Your task to perform on an android device: Show me recent news Image 0: 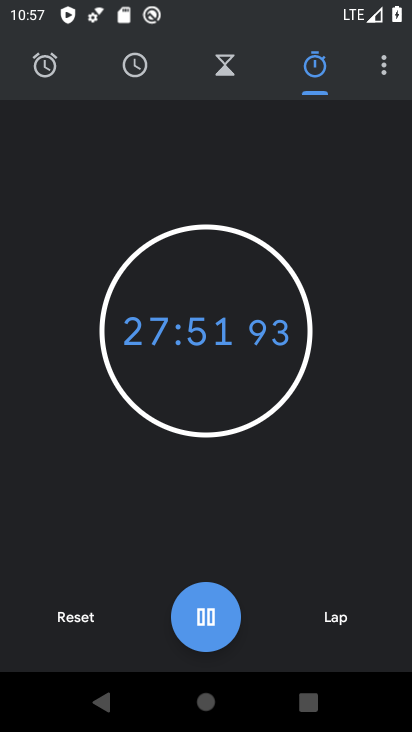
Step 0: press home button
Your task to perform on an android device: Show me recent news Image 1: 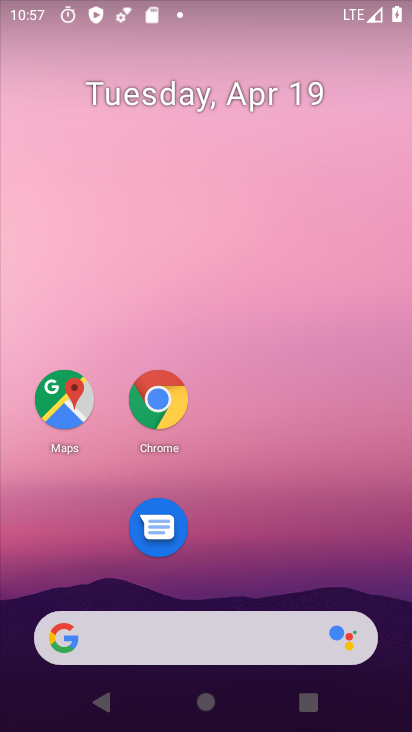
Step 1: click (132, 646)
Your task to perform on an android device: Show me recent news Image 2: 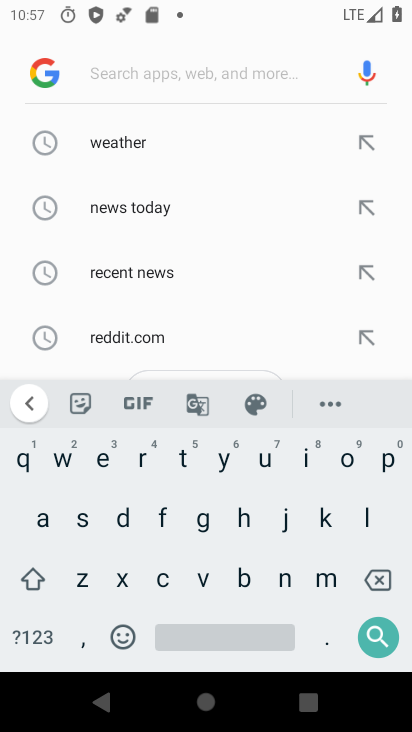
Step 2: click (125, 275)
Your task to perform on an android device: Show me recent news Image 3: 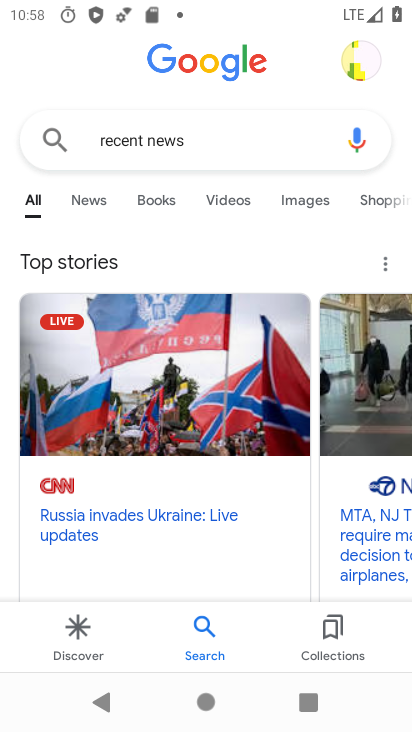
Step 3: task complete